Your task to perform on an android device: set an alarm Image 0: 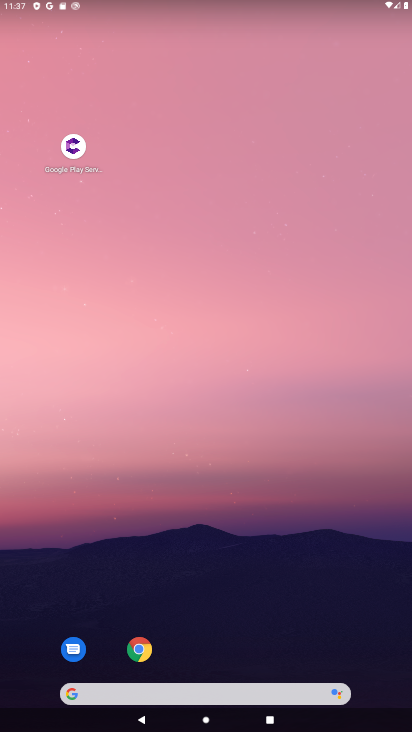
Step 0: drag from (357, 572) to (261, 6)
Your task to perform on an android device: set an alarm Image 1: 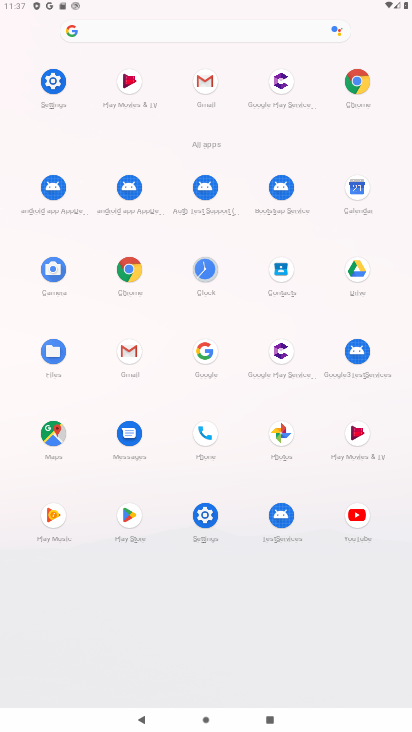
Step 1: click (205, 273)
Your task to perform on an android device: set an alarm Image 2: 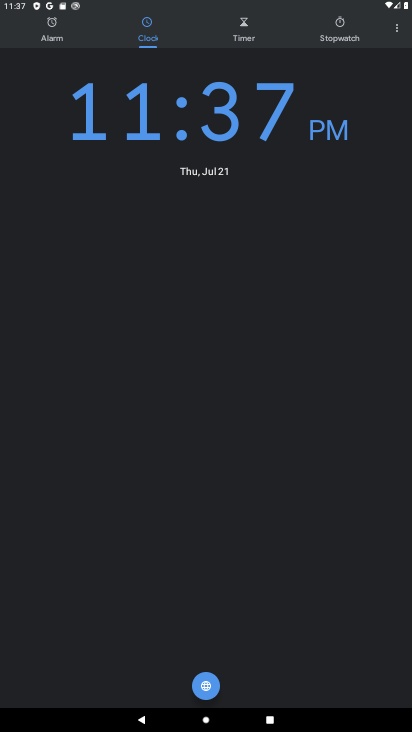
Step 2: click (69, 44)
Your task to perform on an android device: set an alarm Image 3: 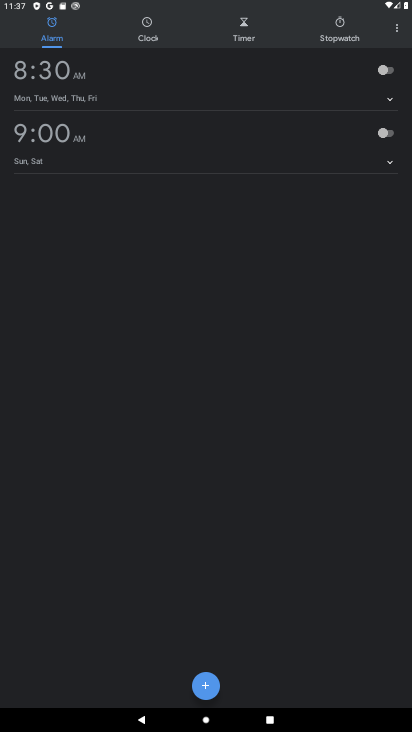
Step 3: click (215, 689)
Your task to perform on an android device: set an alarm Image 4: 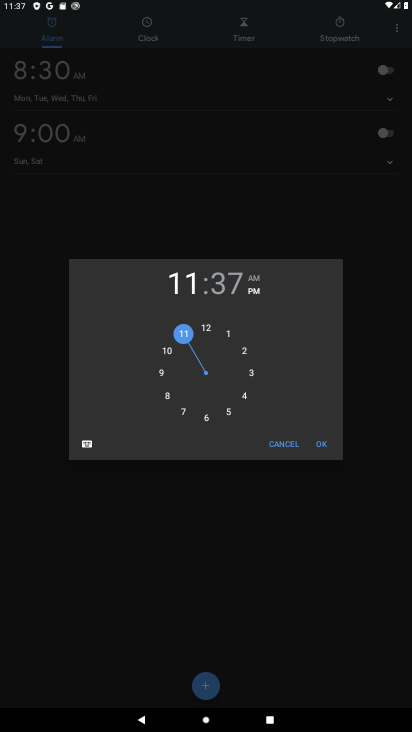
Step 4: click (325, 445)
Your task to perform on an android device: set an alarm Image 5: 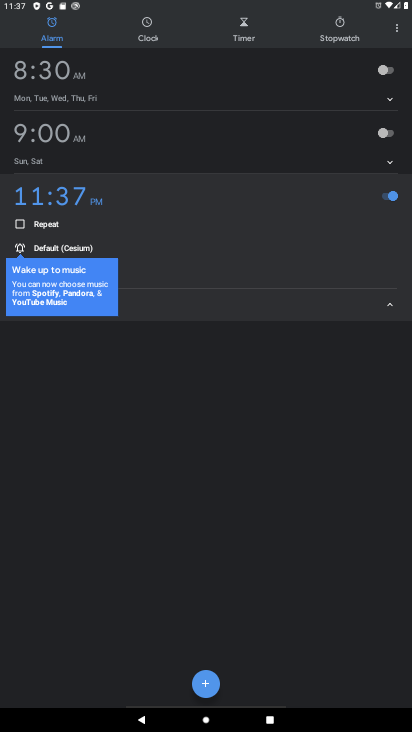
Step 5: task complete